Your task to perform on an android device: turn off translation in the chrome app Image 0: 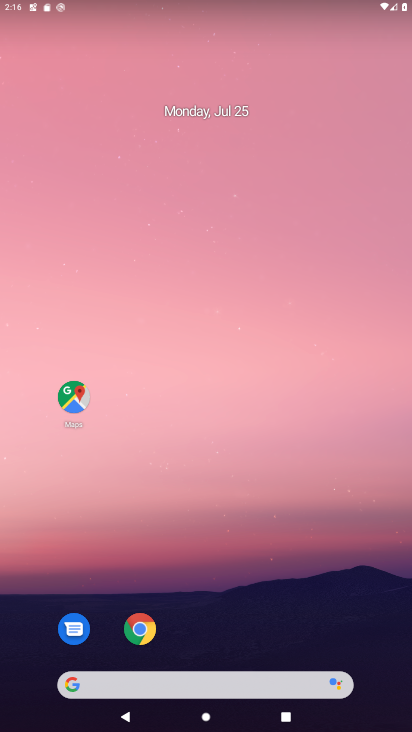
Step 0: drag from (223, 434) to (70, 1)
Your task to perform on an android device: turn off translation in the chrome app Image 1: 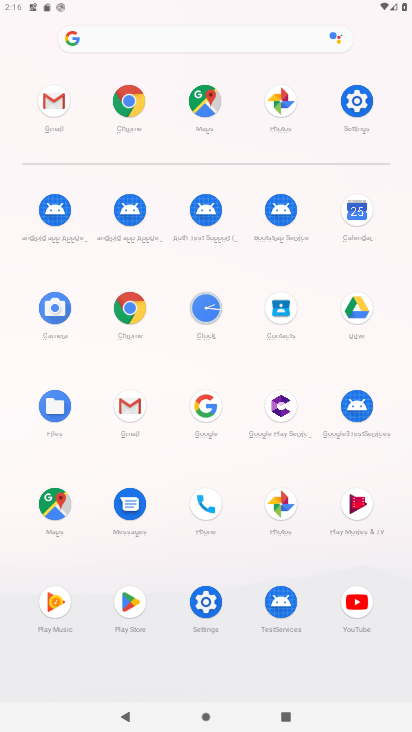
Step 1: click (125, 99)
Your task to perform on an android device: turn off translation in the chrome app Image 2: 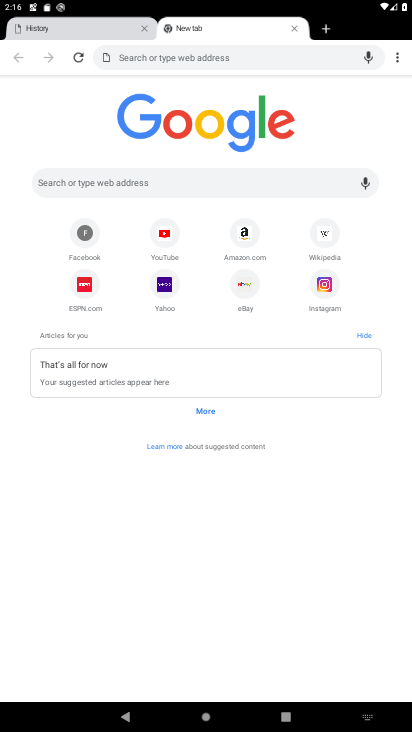
Step 2: drag from (400, 62) to (287, 256)
Your task to perform on an android device: turn off translation in the chrome app Image 3: 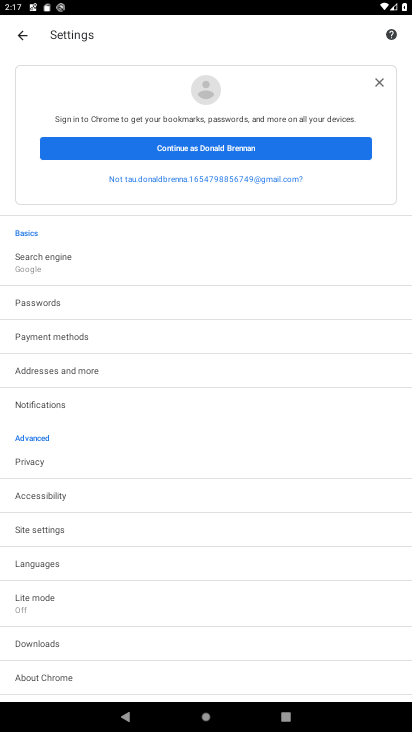
Step 3: drag from (97, 588) to (153, 250)
Your task to perform on an android device: turn off translation in the chrome app Image 4: 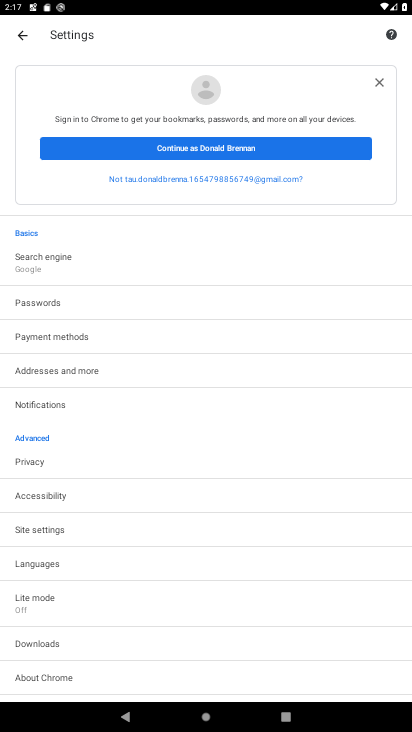
Step 4: click (53, 573)
Your task to perform on an android device: turn off translation in the chrome app Image 5: 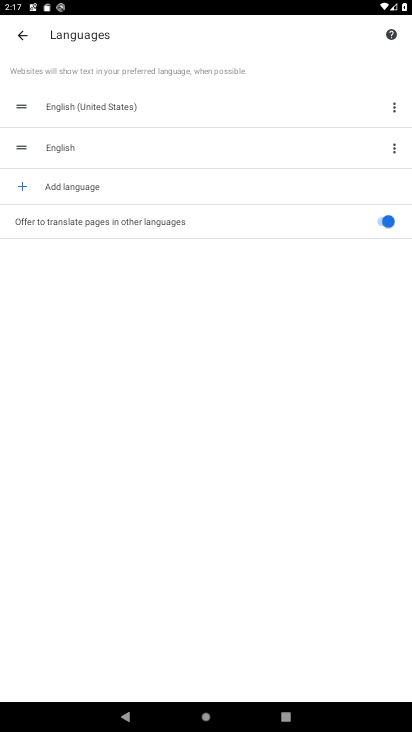
Step 5: click (385, 226)
Your task to perform on an android device: turn off translation in the chrome app Image 6: 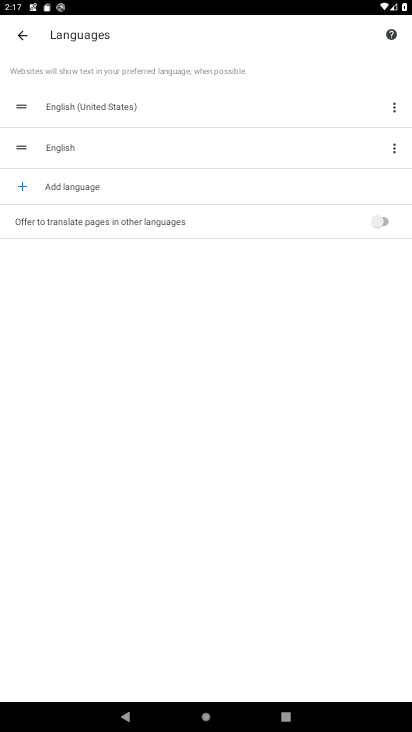
Step 6: task complete